Your task to perform on an android device: Open Yahoo.com Image 0: 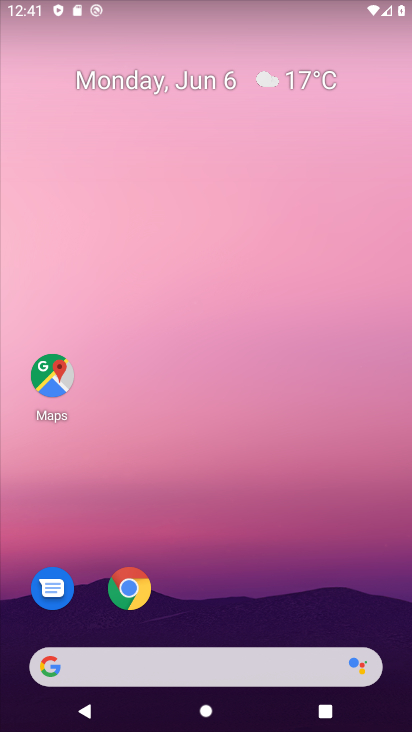
Step 0: drag from (290, 522) to (317, 74)
Your task to perform on an android device: Open Yahoo.com Image 1: 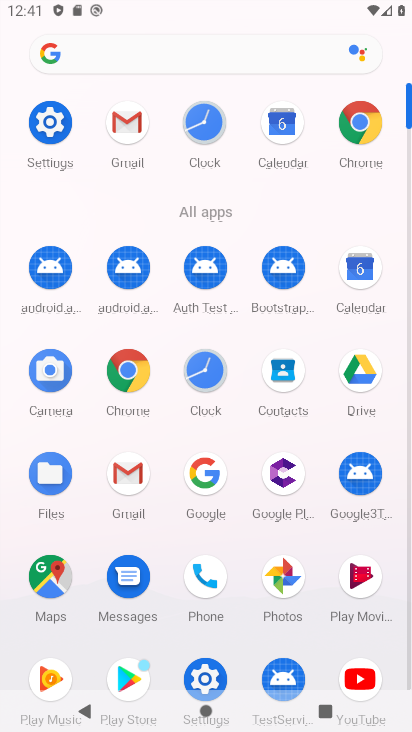
Step 1: click (350, 116)
Your task to perform on an android device: Open Yahoo.com Image 2: 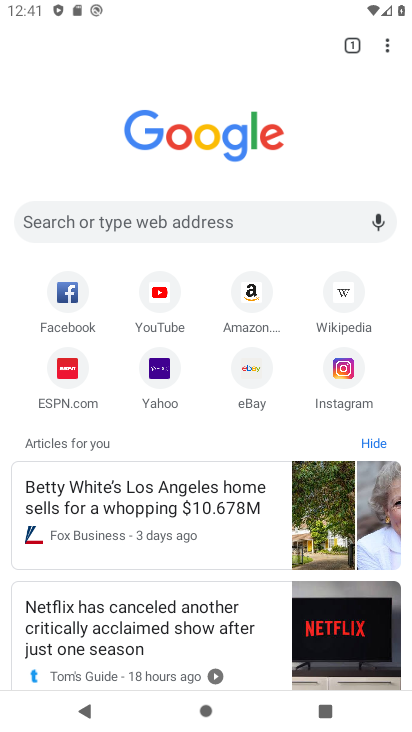
Step 2: click (166, 373)
Your task to perform on an android device: Open Yahoo.com Image 3: 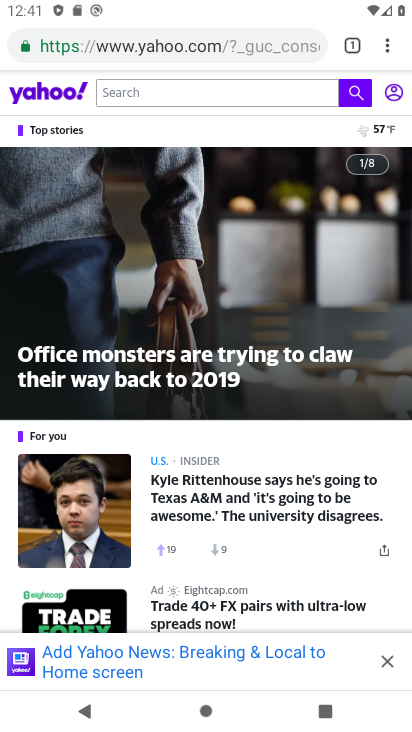
Step 3: task complete